Your task to perform on an android device: check data usage Image 0: 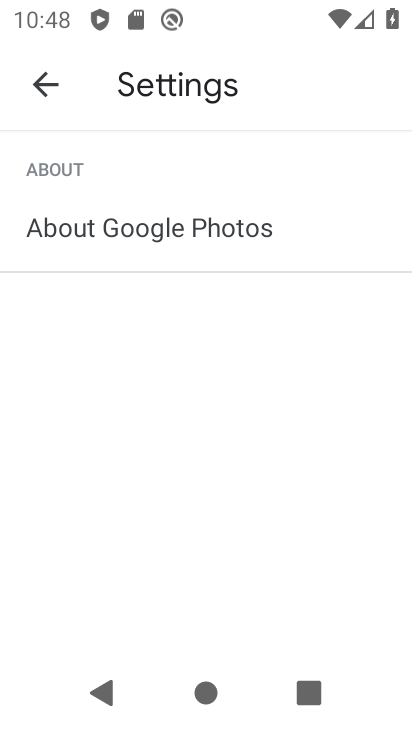
Step 0: press home button
Your task to perform on an android device: check data usage Image 1: 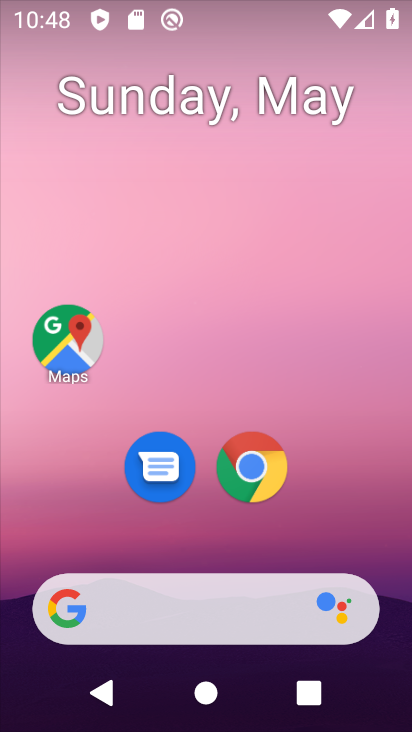
Step 1: drag from (371, 559) to (344, 8)
Your task to perform on an android device: check data usage Image 2: 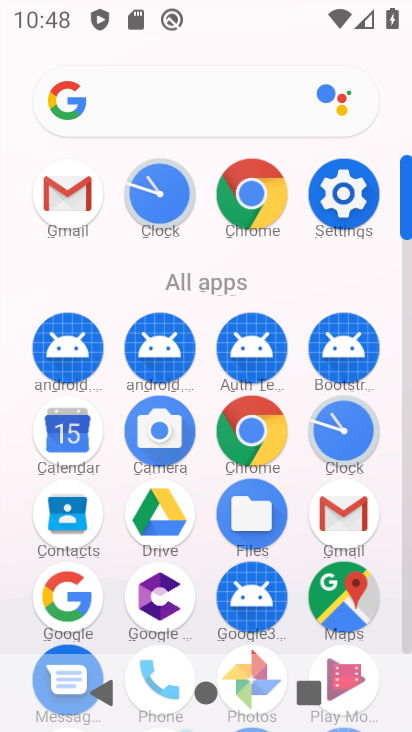
Step 2: click (349, 187)
Your task to perform on an android device: check data usage Image 3: 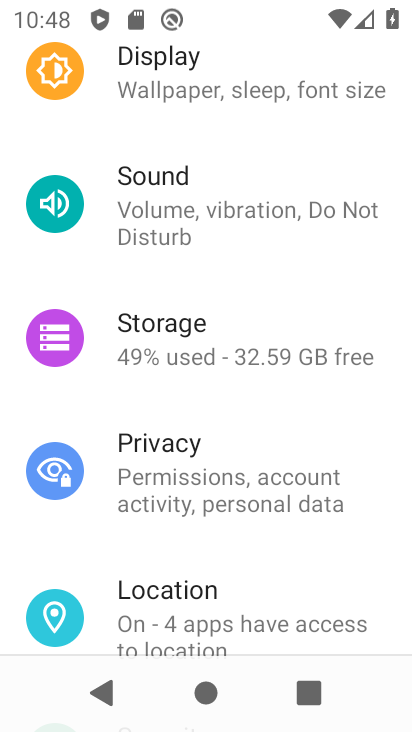
Step 3: drag from (273, 155) to (256, 522)
Your task to perform on an android device: check data usage Image 4: 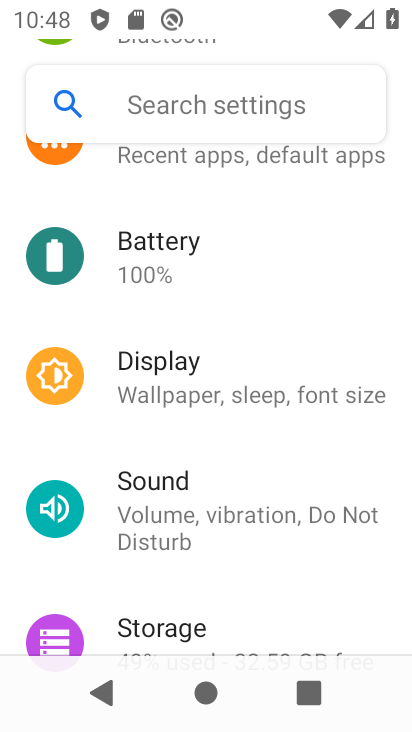
Step 4: drag from (293, 232) to (254, 570)
Your task to perform on an android device: check data usage Image 5: 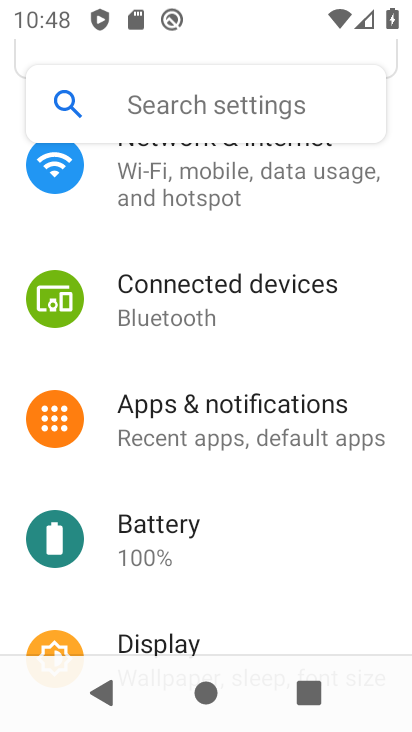
Step 5: drag from (314, 251) to (283, 552)
Your task to perform on an android device: check data usage Image 6: 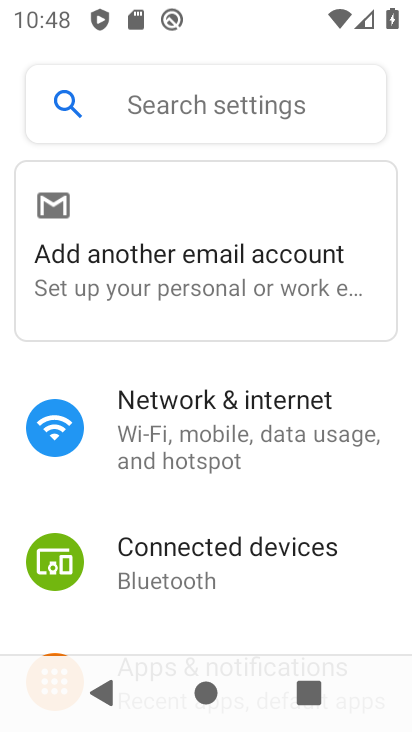
Step 6: click (213, 439)
Your task to perform on an android device: check data usage Image 7: 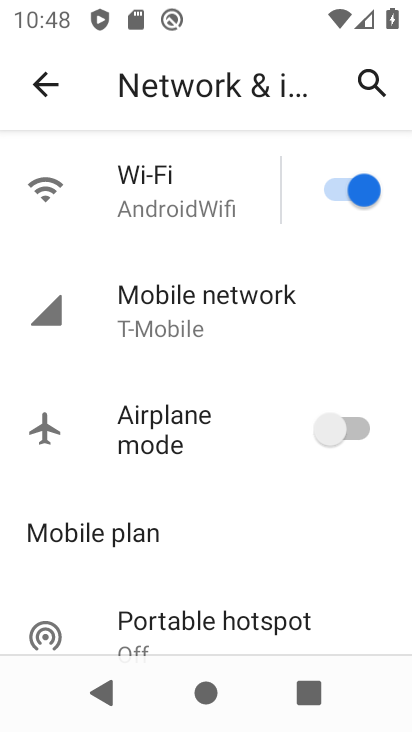
Step 7: click (152, 322)
Your task to perform on an android device: check data usage Image 8: 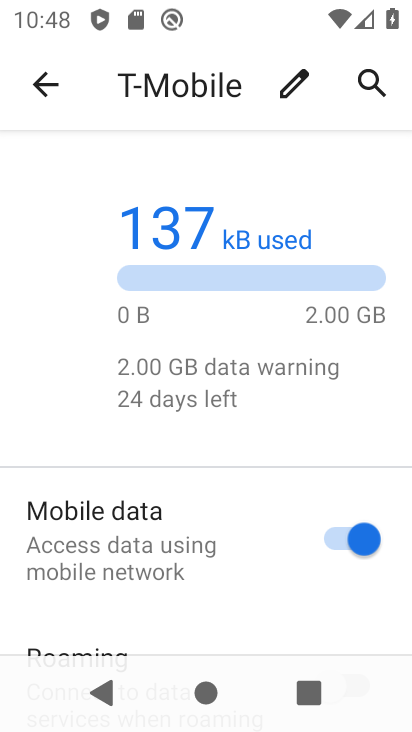
Step 8: drag from (174, 516) to (152, 166)
Your task to perform on an android device: check data usage Image 9: 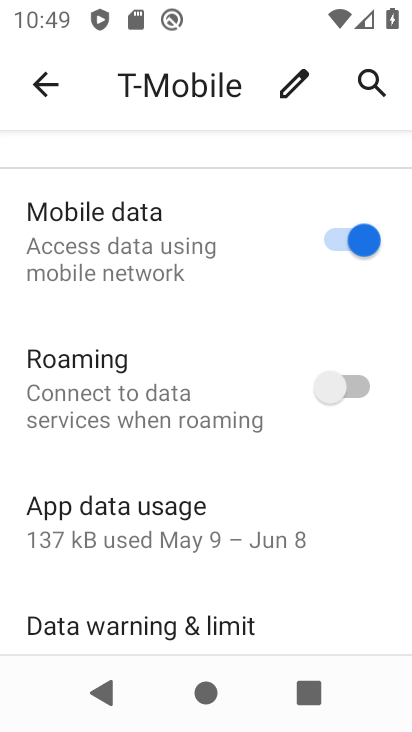
Step 9: click (95, 531)
Your task to perform on an android device: check data usage Image 10: 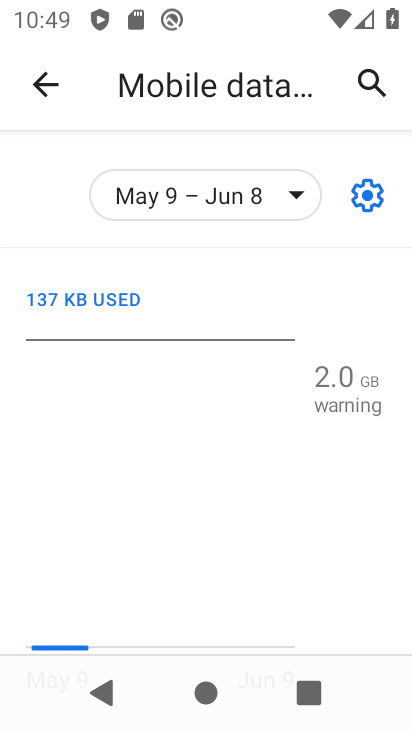
Step 10: task complete